Your task to perform on an android device: Do I have any events this weekend? Image 0: 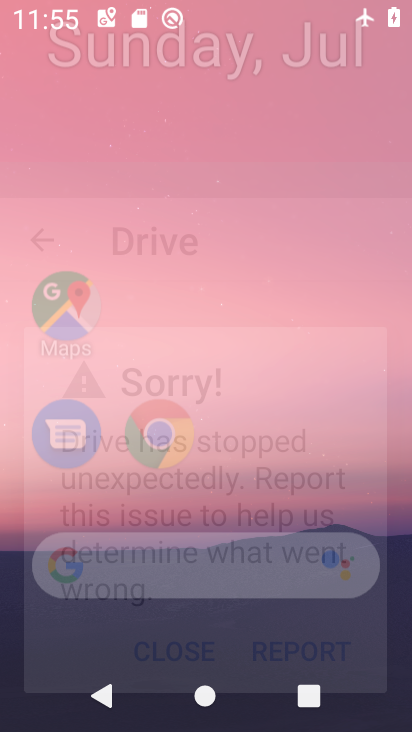
Step 0: press home button
Your task to perform on an android device: Do I have any events this weekend? Image 1: 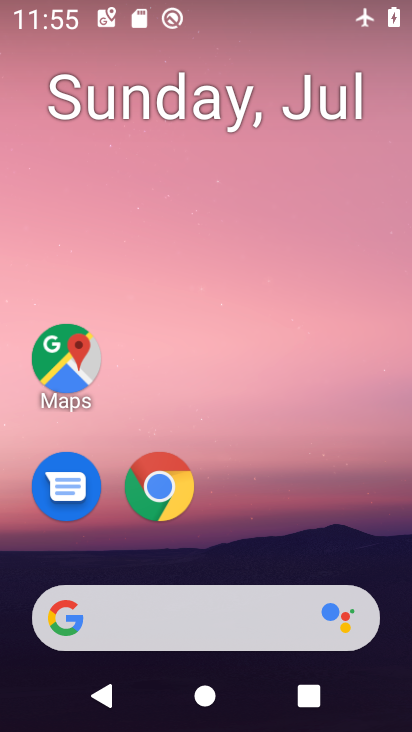
Step 1: drag from (376, 532) to (377, 112)
Your task to perform on an android device: Do I have any events this weekend? Image 2: 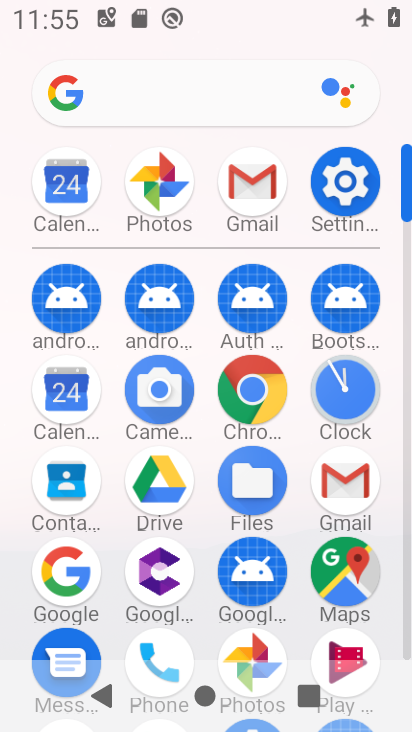
Step 2: click (76, 394)
Your task to perform on an android device: Do I have any events this weekend? Image 3: 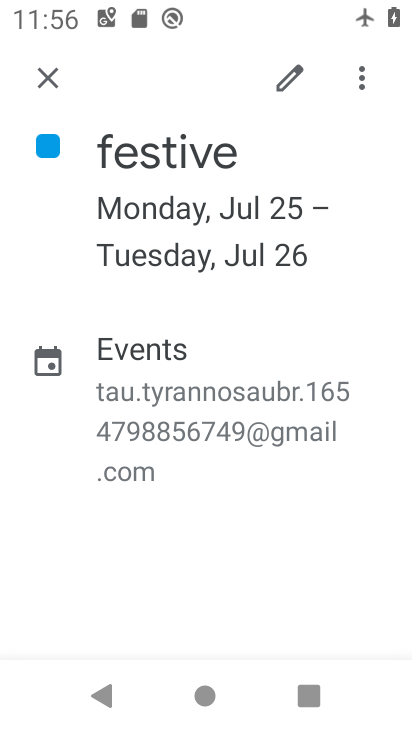
Step 3: task complete